Your task to perform on an android device: Open a new Chrome incognito tab Image 0: 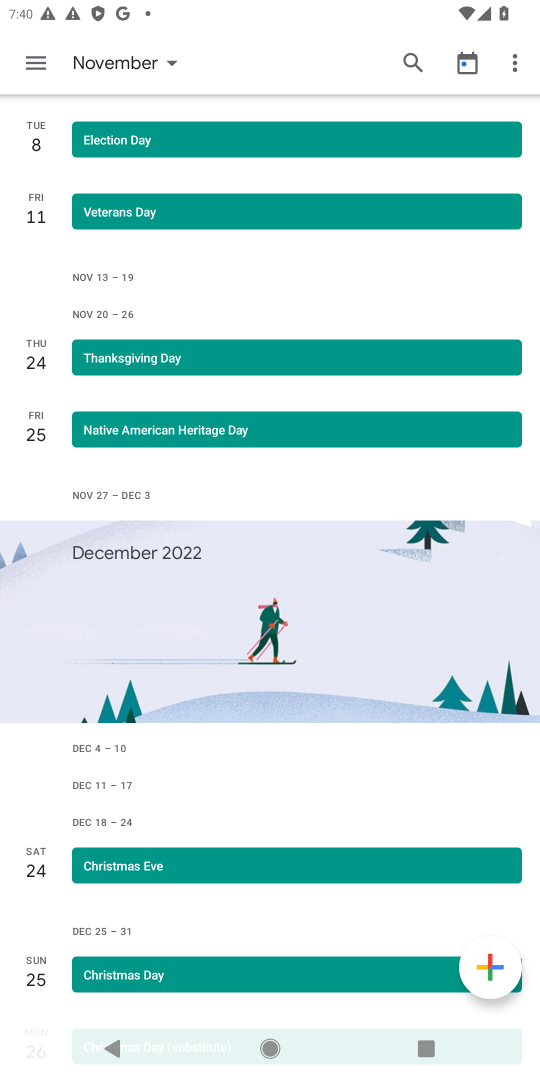
Step 0: press home button
Your task to perform on an android device: Open a new Chrome incognito tab Image 1: 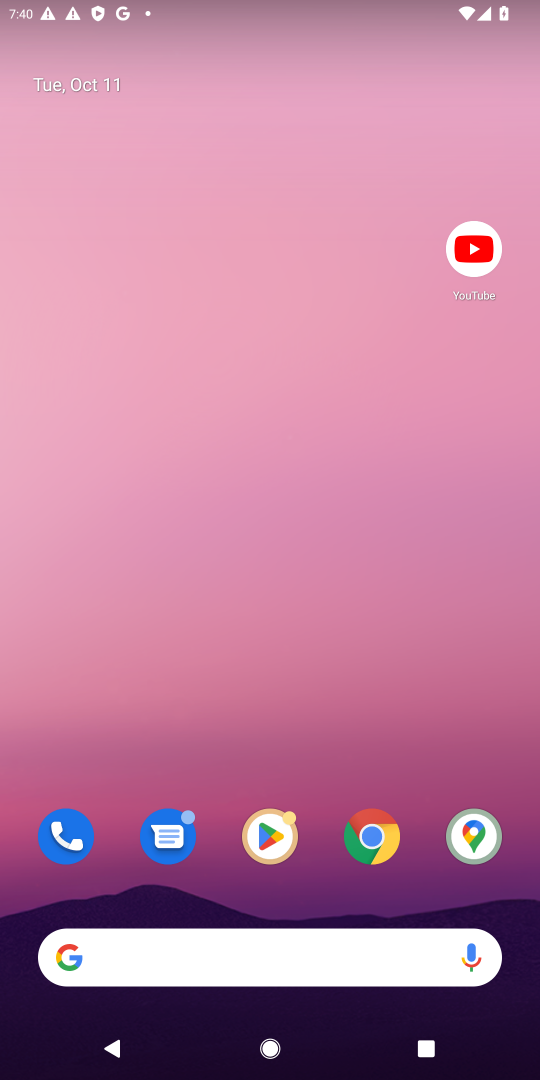
Step 1: click (372, 824)
Your task to perform on an android device: Open a new Chrome incognito tab Image 2: 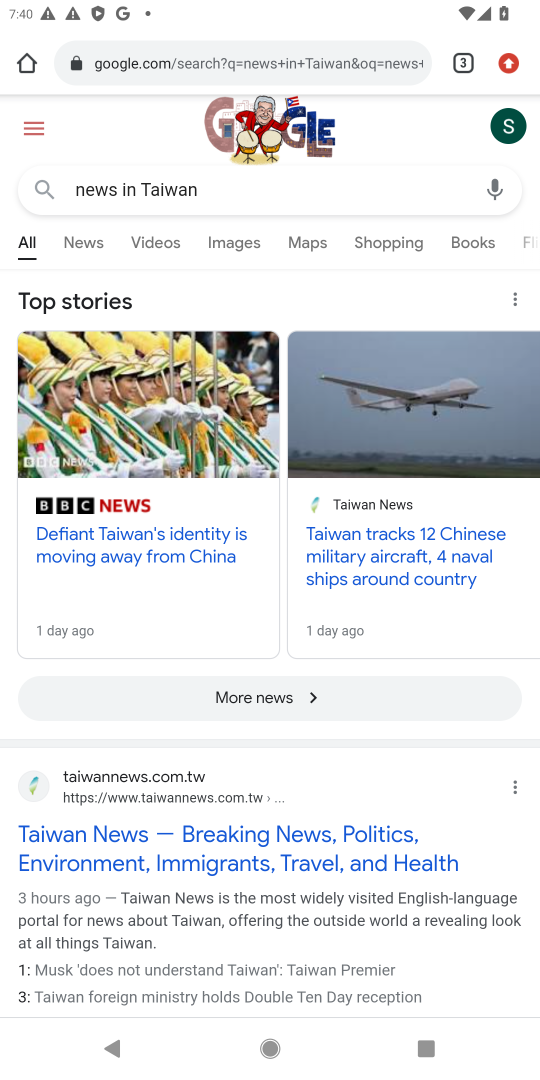
Step 2: click (508, 62)
Your task to perform on an android device: Open a new Chrome incognito tab Image 3: 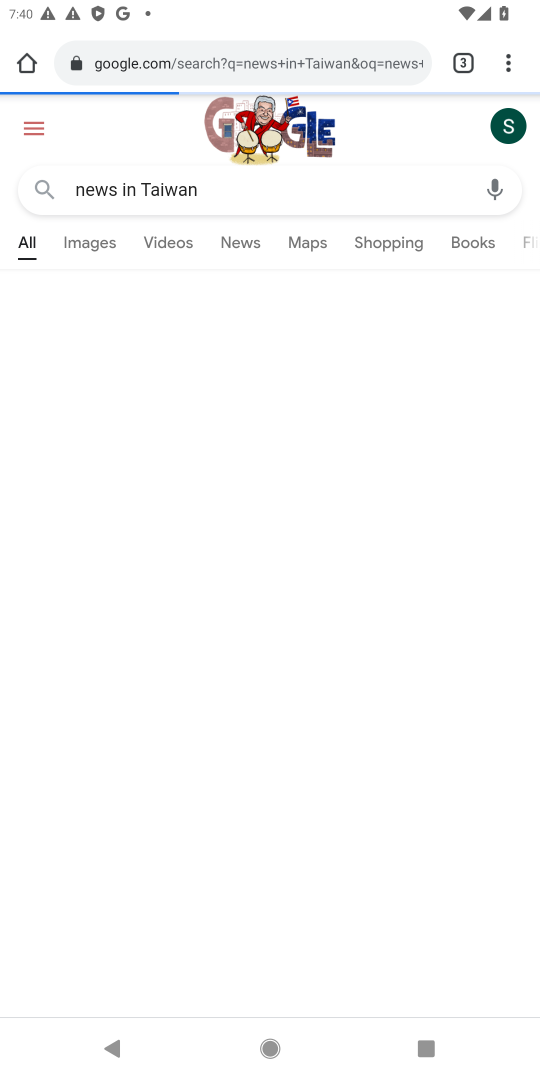
Step 3: task complete